Your task to perform on an android device: stop showing notifications on the lock screen Image 0: 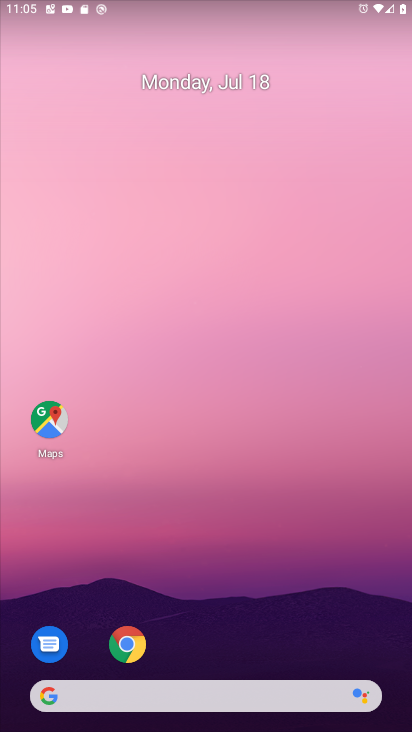
Step 0: drag from (224, 652) to (169, 180)
Your task to perform on an android device: stop showing notifications on the lock screen Image 1: 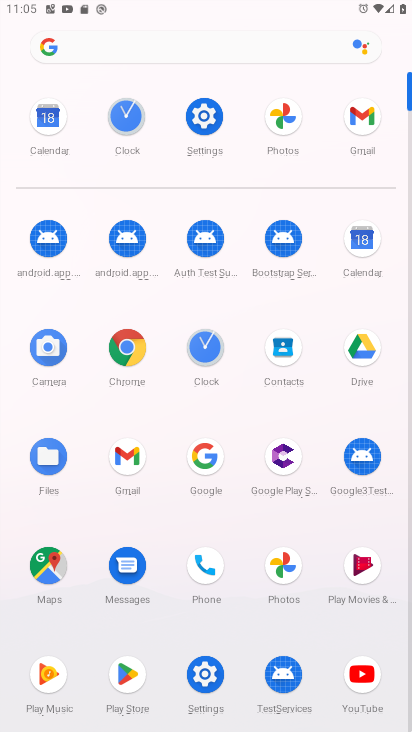
Step 1: click (202, 140)
Your task to perform on an android device: stop showing notifications on the lock screen Image 2: 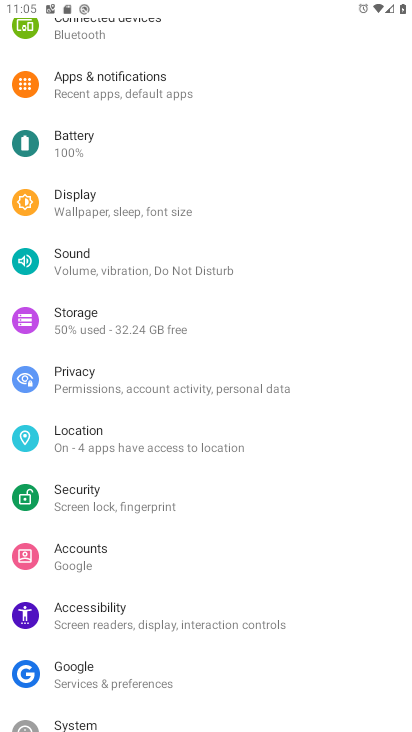
Step 2: click (156, 103)
Your task to perform on an android device: stop showing notifications on the lock screen Image 3: 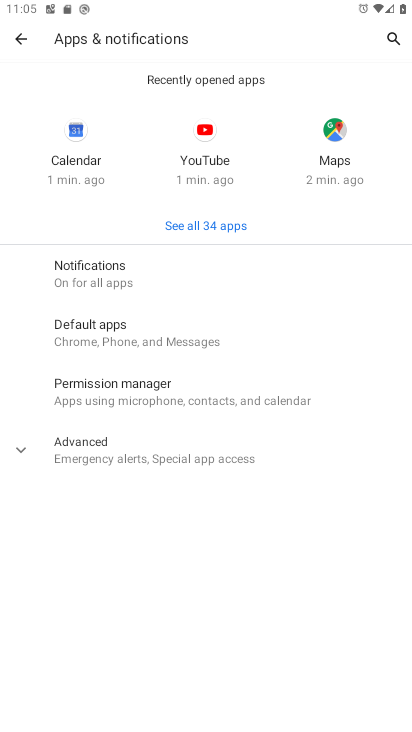
Step 3: click (72, 438)
Your task to perform on an android device: stop showing notifications on the lock screen Image 4: 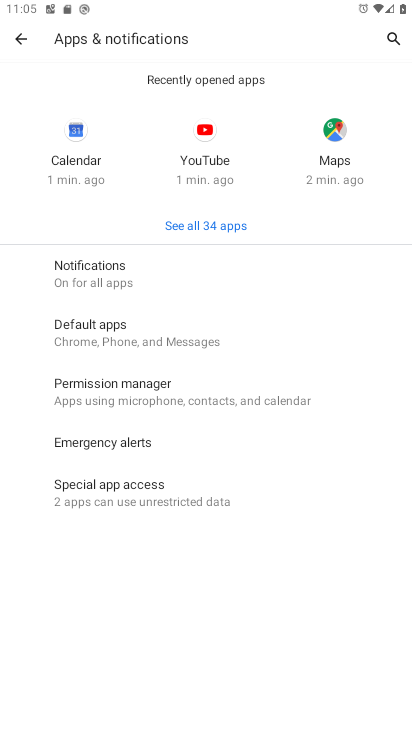
Step 4: click (132, 282)
Your task to perform on an android device: stop showing notifications on the lock screen Image 5: 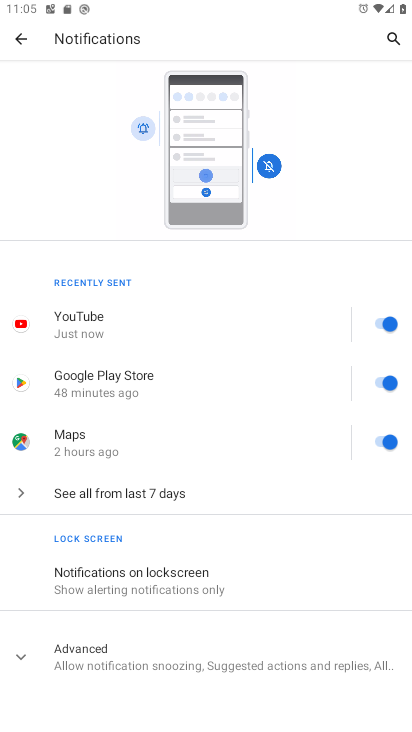
Step 5: click (118, 658)
Your task to perform on an android device: stop showing notifications on the lock screen Image 6: 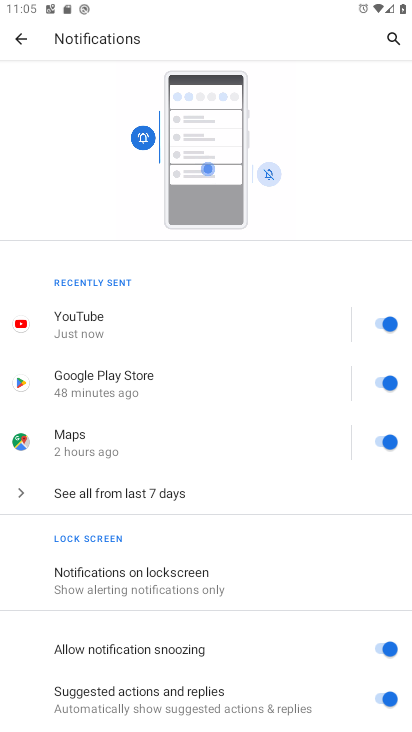
Step 6: task complete